Your task to perform on an android device: Search for seafood restaurants on Google Maps Image 0: 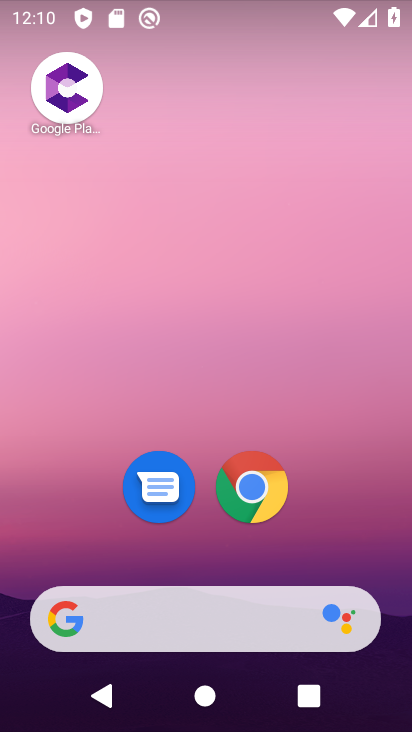
Step 0: drag from (184, 572) to (297, 51)
Your task to perform on an android device: Search for seafood restaurants on Google Maps Image 1: 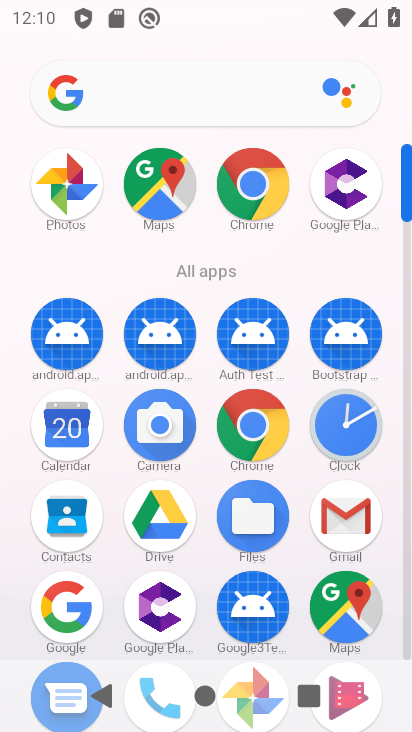
Step 1: click (161, 189)
Your task to perform on an android device: Search for seafood restaurants on Google Maps Image 2: 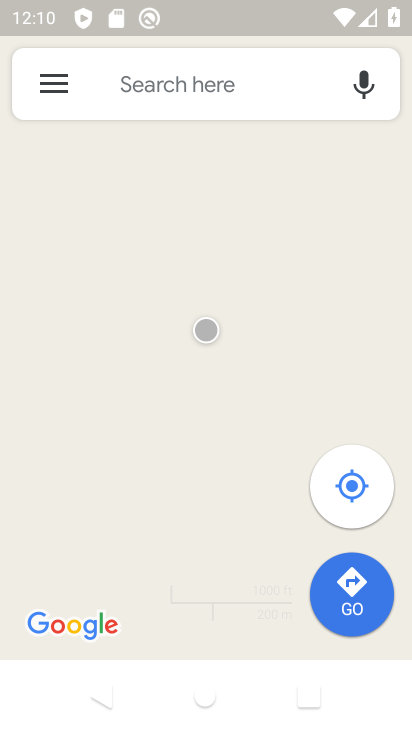
Step 2: click (178, 80)
Your task to perform on an android device: Search for seafood restaurants on Google Maps Image 3: 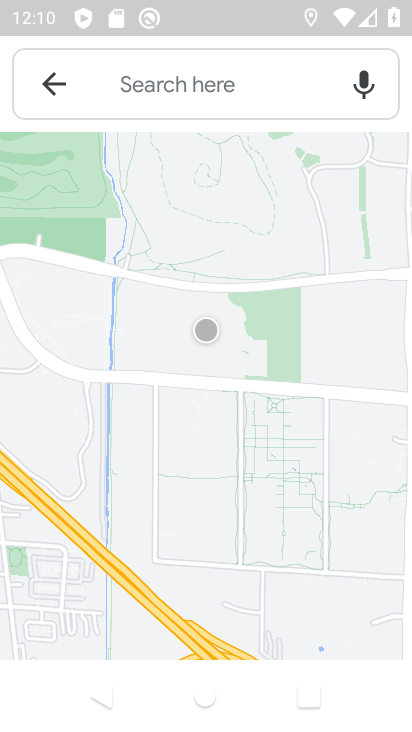
Step 3: click (156, 88)
Your task to perform on an android device: Search for seafood restaurants on Google Maps Image 4: 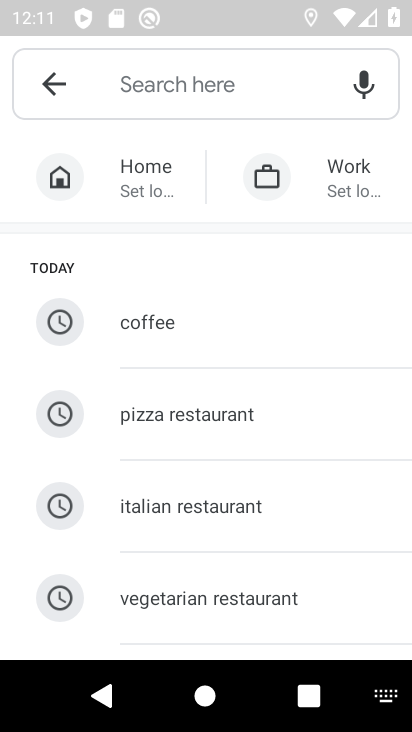
Step 4: type "seafood"
Your task to perform on an android device: Search for seafood restaurants on Google Maps Image 5: 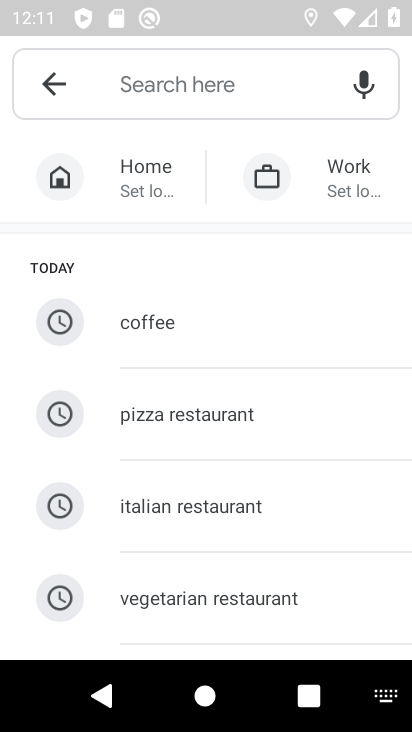
Step 5: click (233, 203)
Your task to perform on an android device: Search for seafood restaurants on Google Maps Image 6: 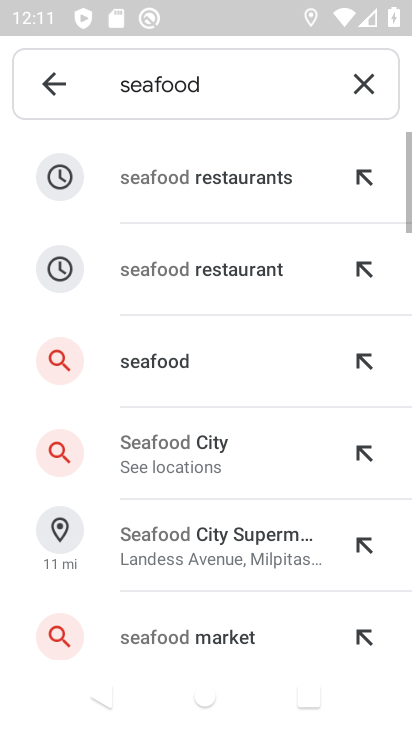
Step 6: click (228, 193)
Your task to perform on an android device: Search for seafood restaurants on Google Maps Image 7: 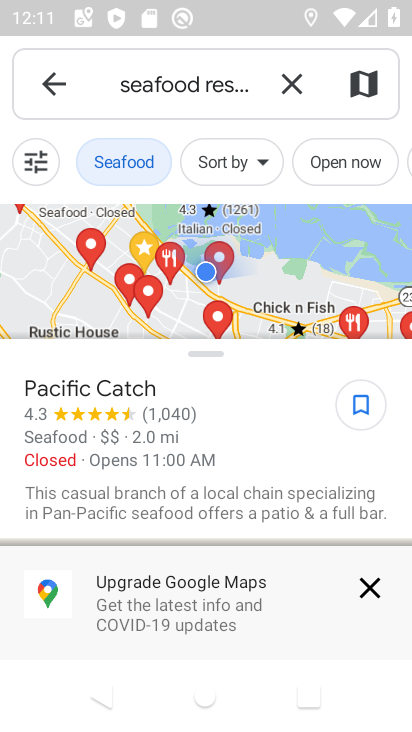
Step 7: task complete